Your task to perform on an android device: Open location settings Image 0: 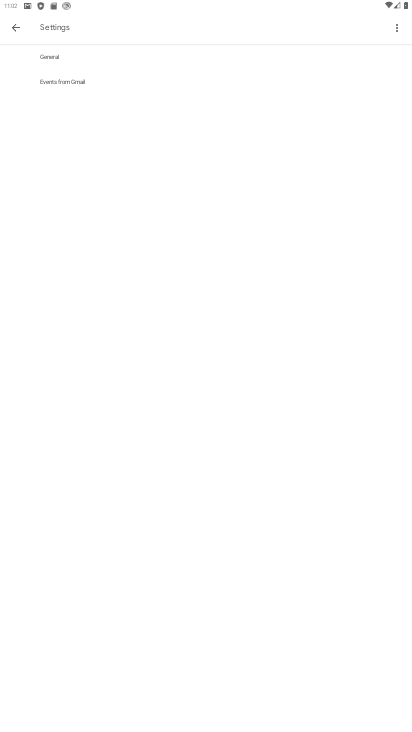
Step 0: press home button
Your task to perform on an android device: Open location settings Image 1: 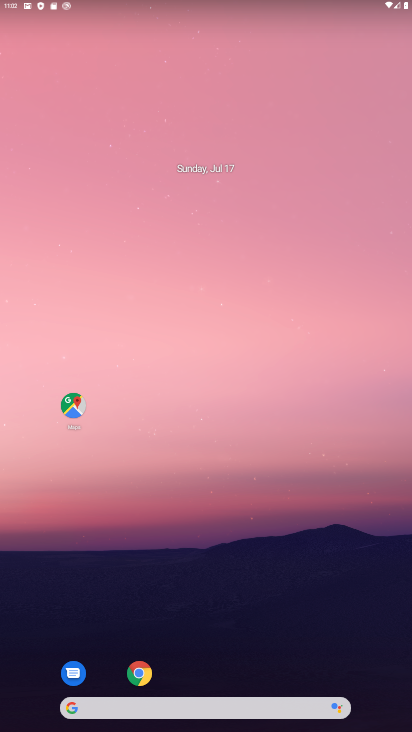
Step 1: drag from (302, 664) to (230, 188)
Your task to perform on an android device: Open location settings Image 2: 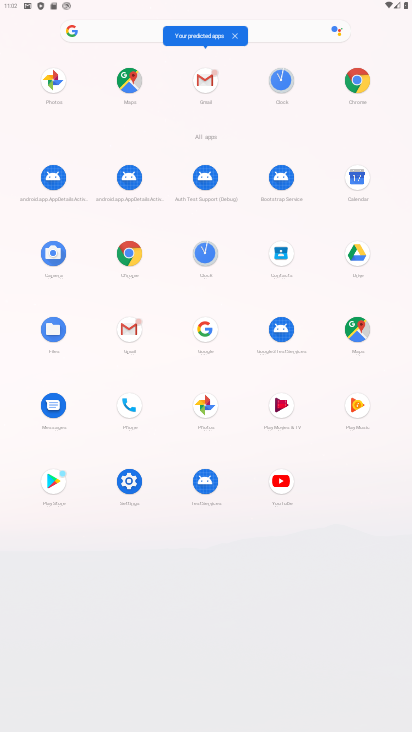
Step 2: click (139, 486)
Your task to perform on an android device: Open location settings Image 3: 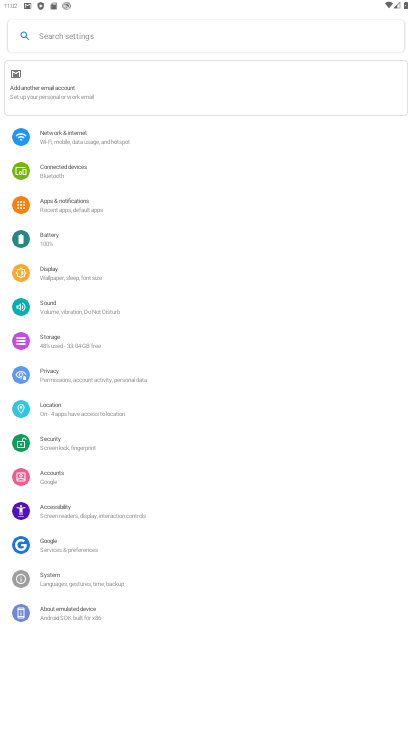
Step 3: click (87, 414)
Your task to perform on an android device: Open location settings Image 4: 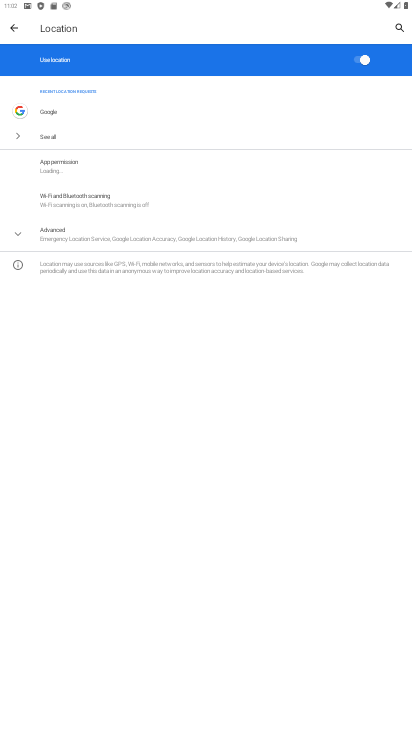
Step 4: task complete